Your task to perform on an android device: open app "Walmart Shopping & Grocery" (install if not already installed) Image 0: 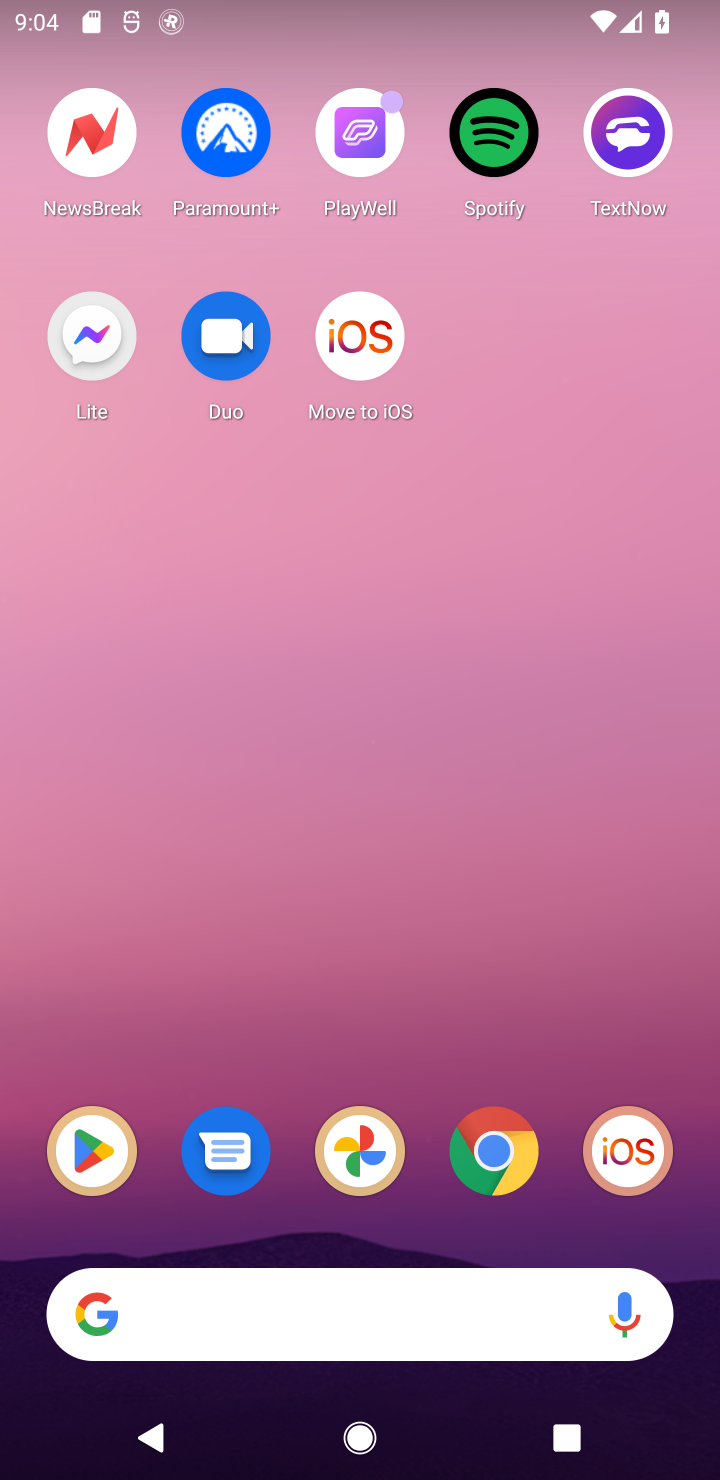
Step 0: click (85, 1183)
Your task to perform on an android device: open app "Walmart Shopping & Grocery" (install if not already installed) Image 1: 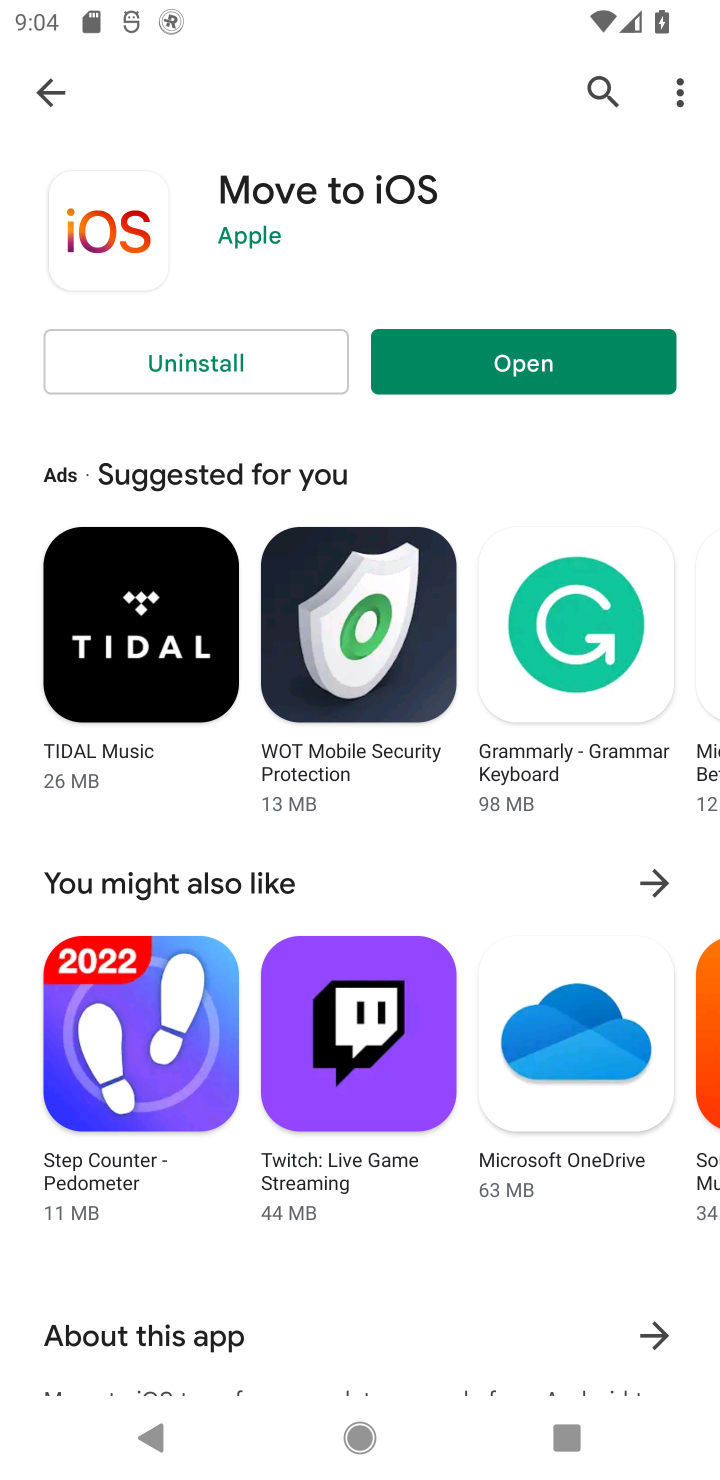
Step 1: click (631, 96)
Your task to perform on an android device: open app "Walmart Shopping & Grocery" (install if not already installed) Image 2: 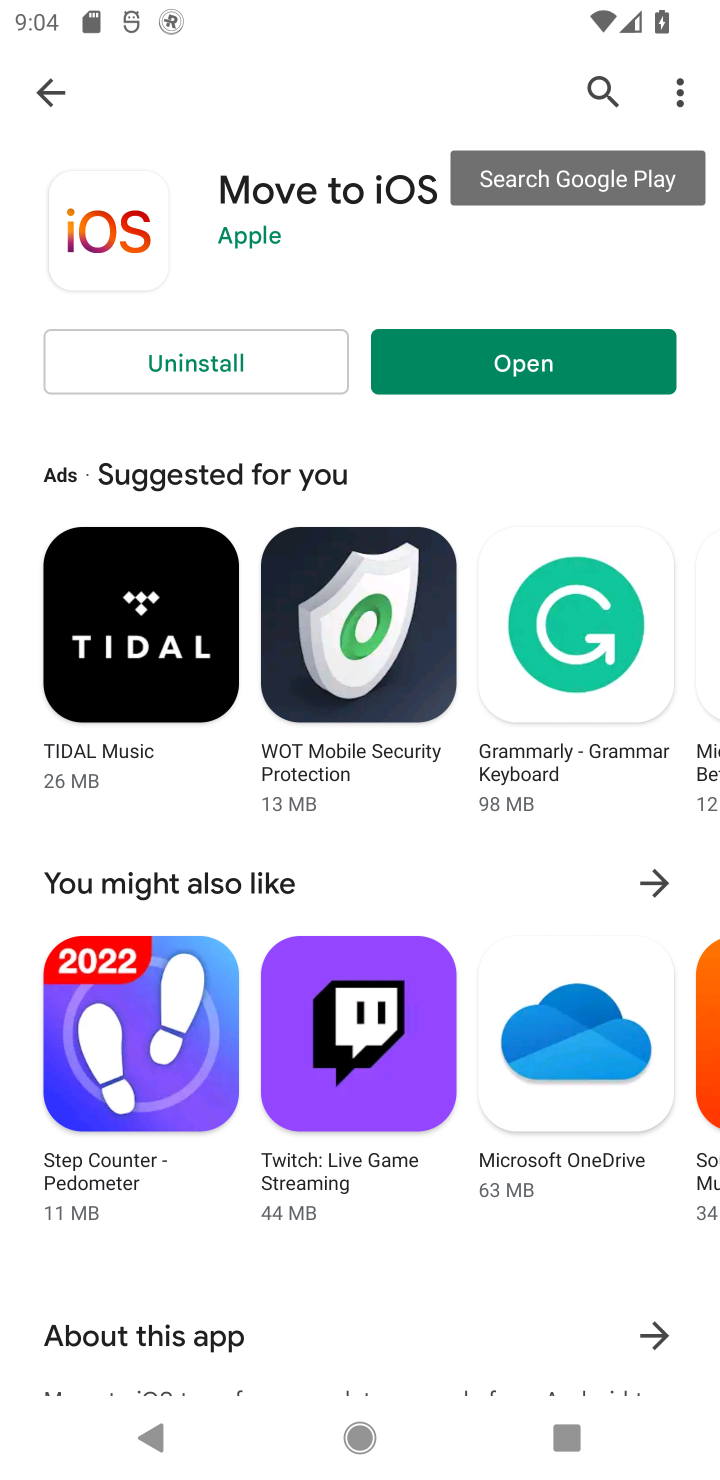
Step 2: click (604, 91)
Your task to perform on an android device: open app "Walmart Shopping & Grocery" (install if not already installed) Image 3: 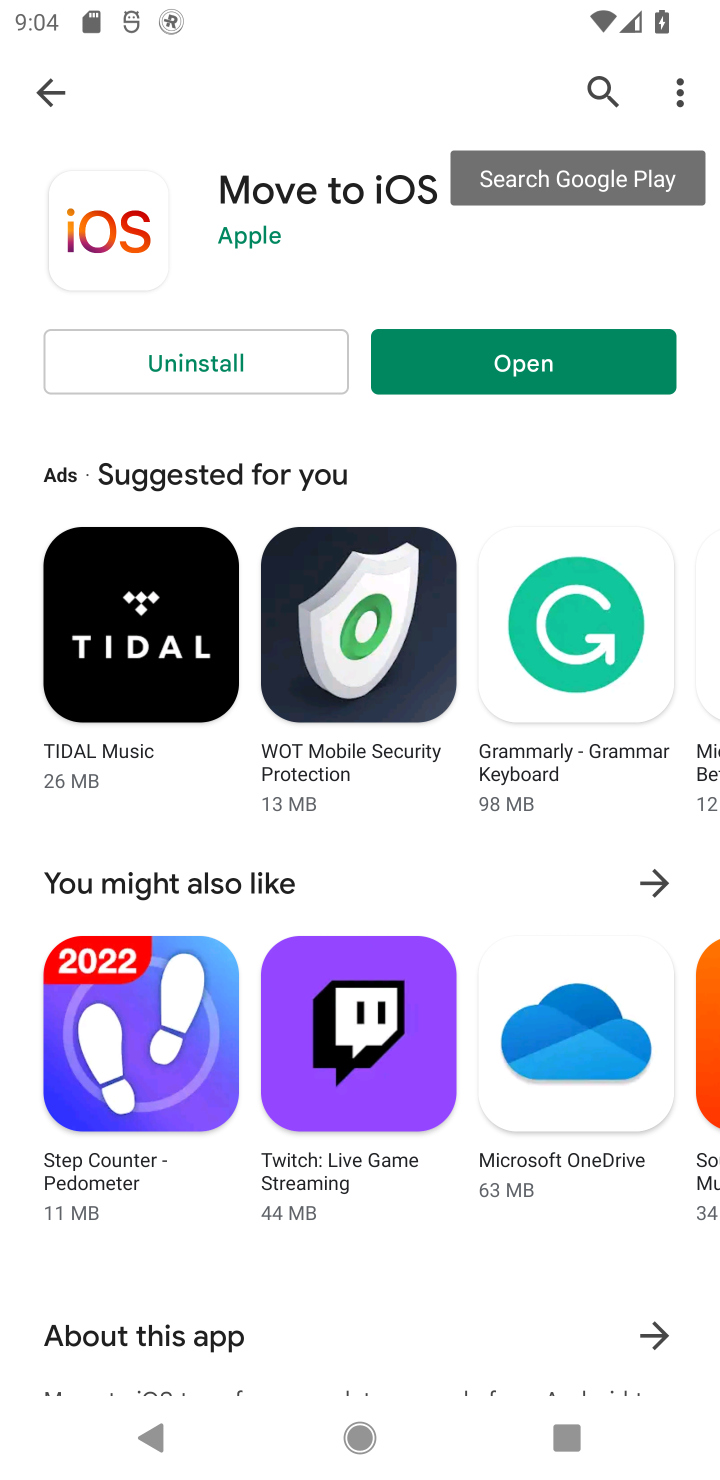
Step 3: click (610, 95)
Your task to perform on an android device: open app "Walmart Shopping & Grocery" (install if not already installed) Image 4: 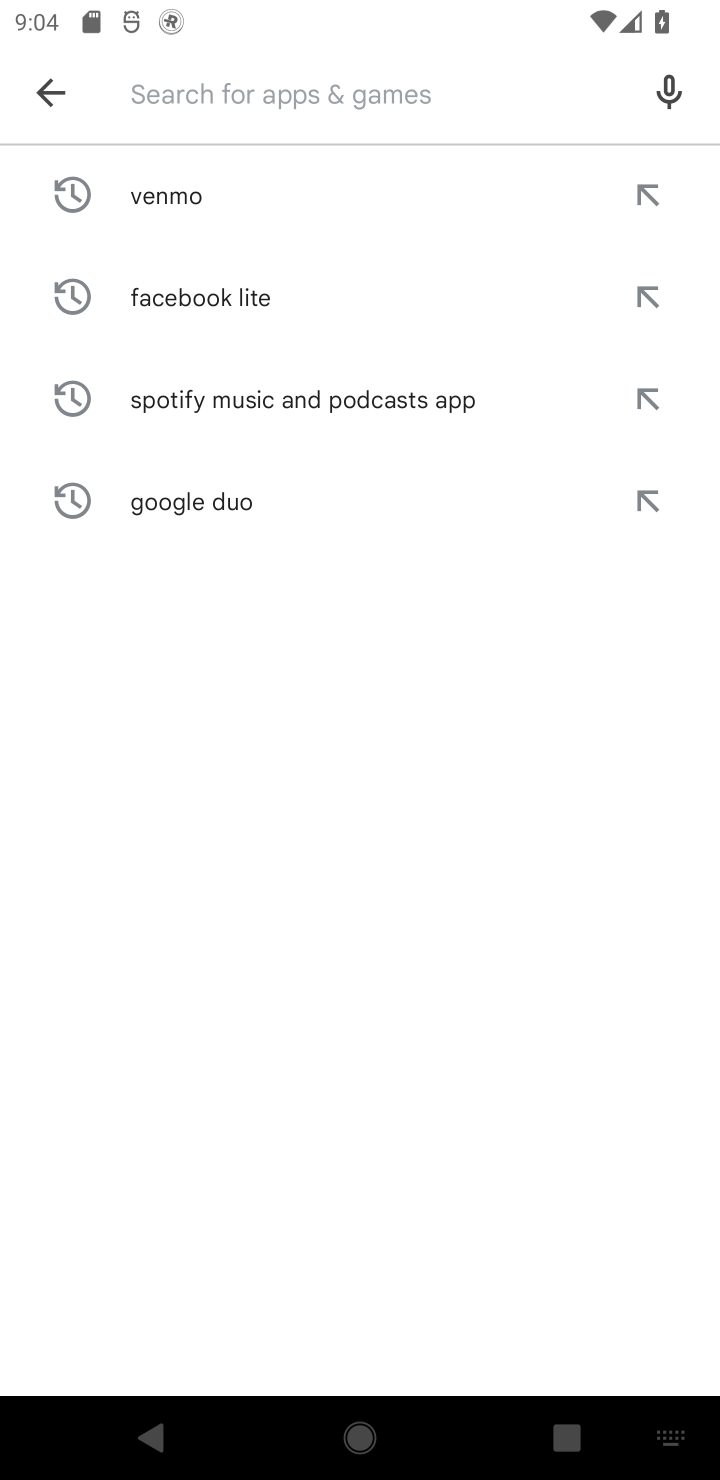
Step 4: type "Walmart Shopping & Grocery"
Your task to perform on an android device: open app "Walmart Shopping & Grocery" (install if not already installed) Image 5: 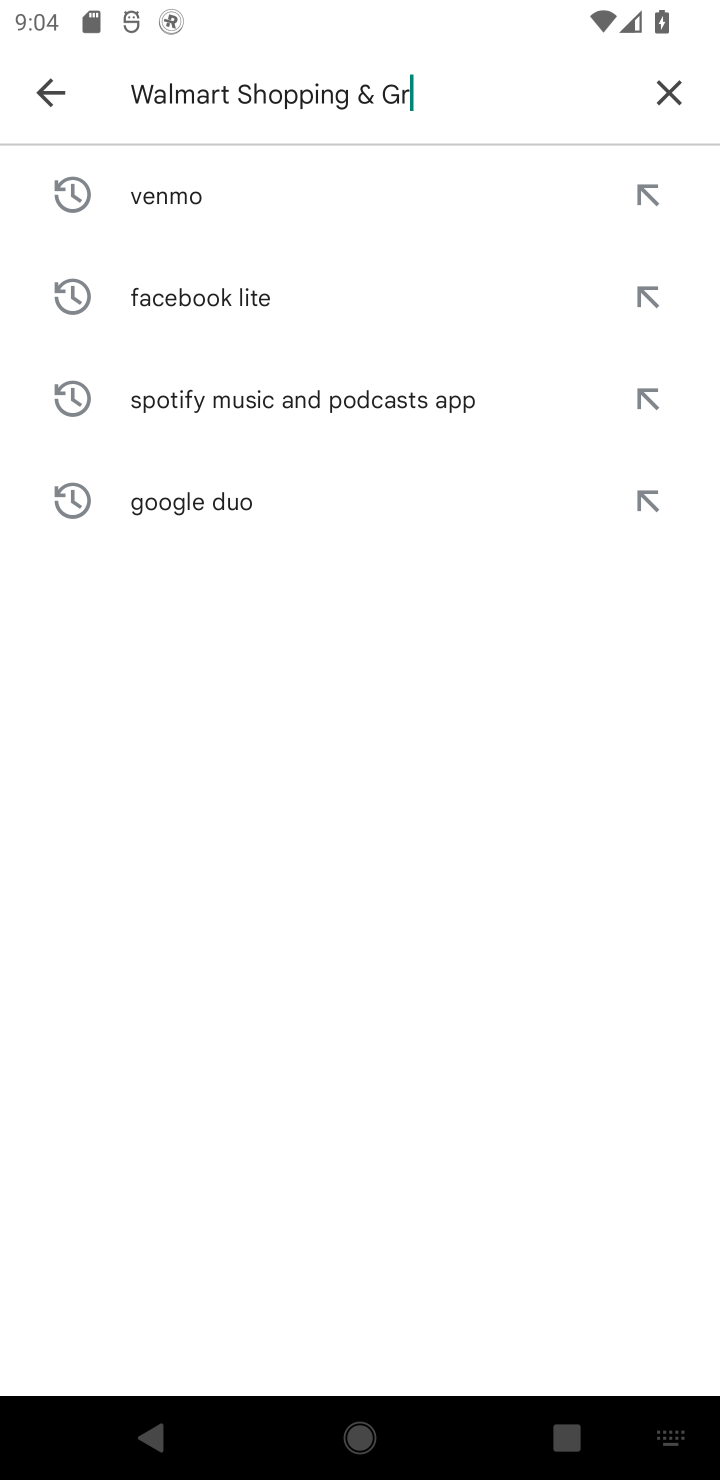
Step 5: type ""
Your task to perform on an android device: open app "Walmart Shopping & Grocery" (install if not already installed) Image 6: 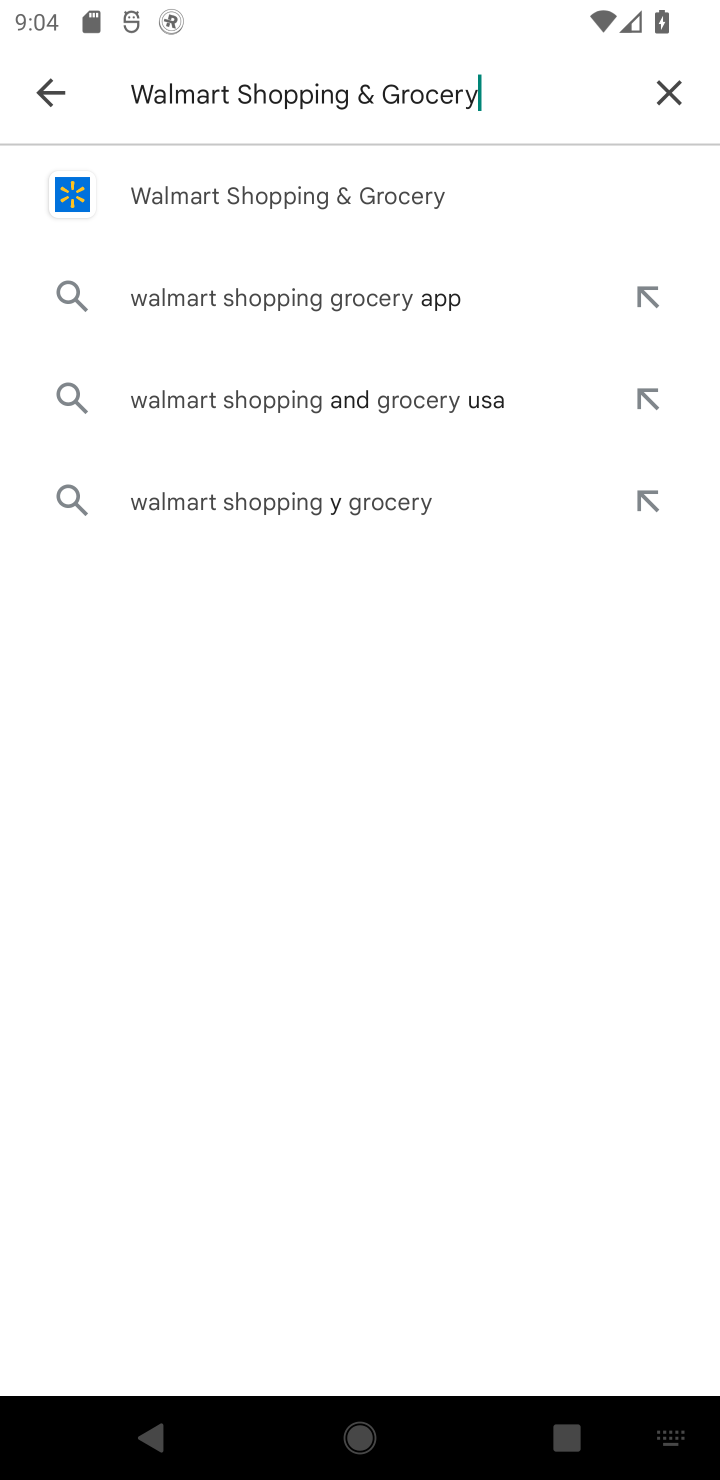
Step 6: click (251, 212)
Your task to perform on an android device: open app "Walmart Shopping & Grocery" (install if not already installed) Image 7: 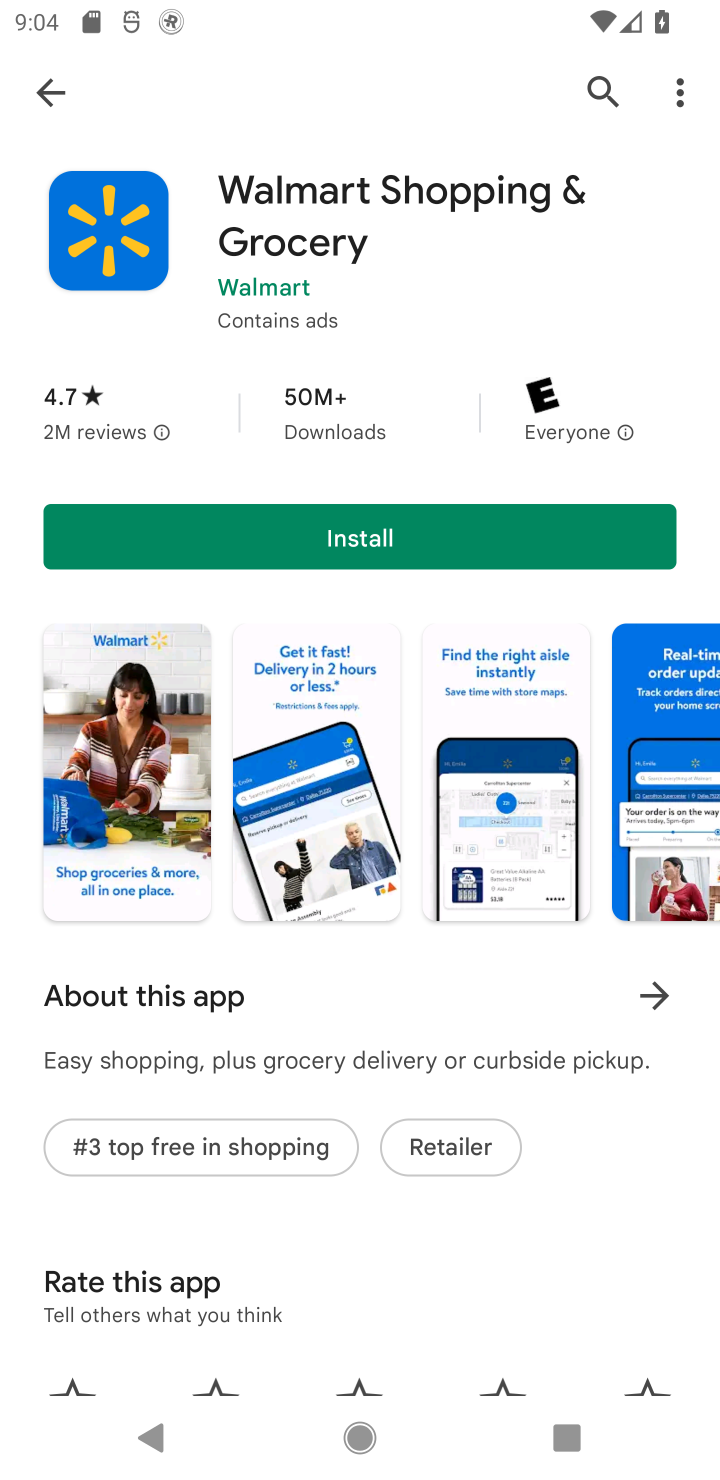
Step 7: click (434, 513)
Your task to perform on an android device: open app "Walmart Shopping & Grocery" (install if not already installed) Image 8: 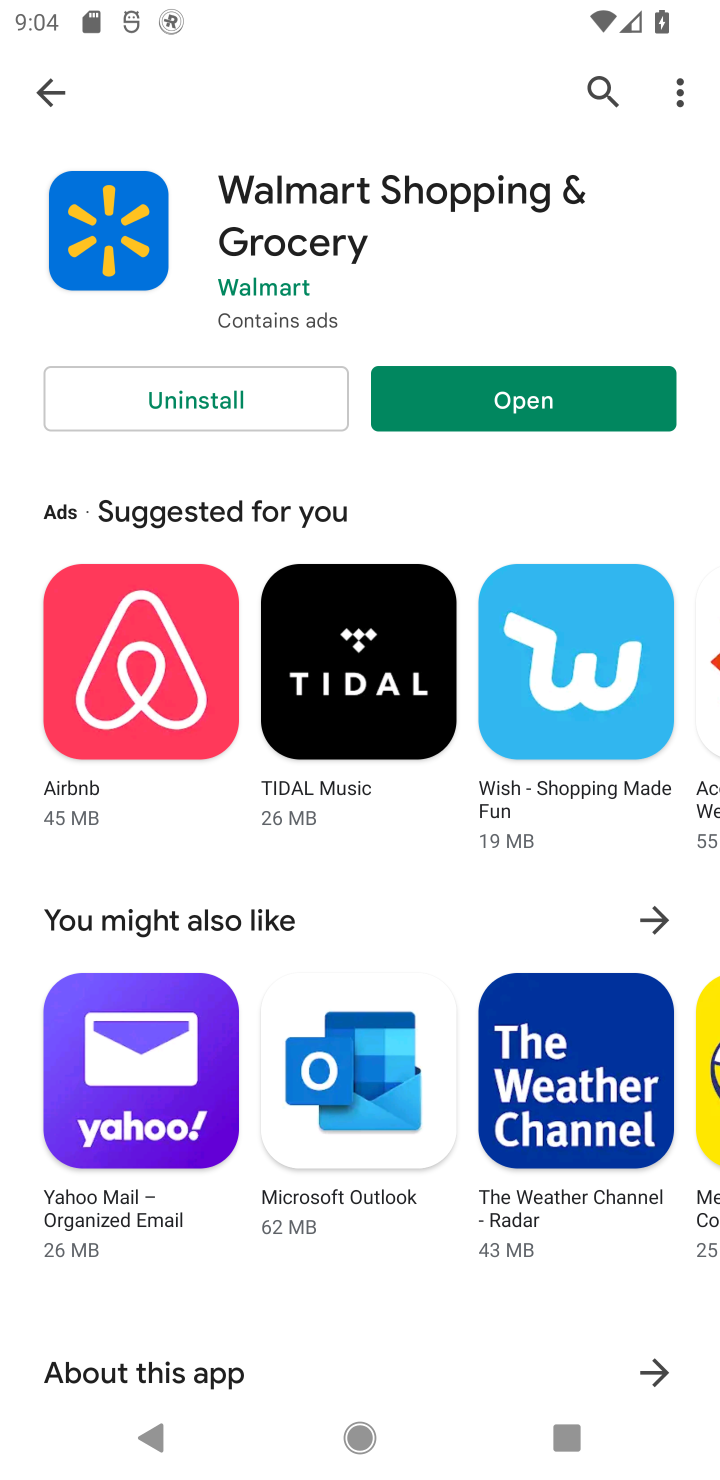
Step 8: click (485, 390)
Your task to perform on an android device: open app "Walmart Shopping & Grocery" (install if not already installed) Image 9: 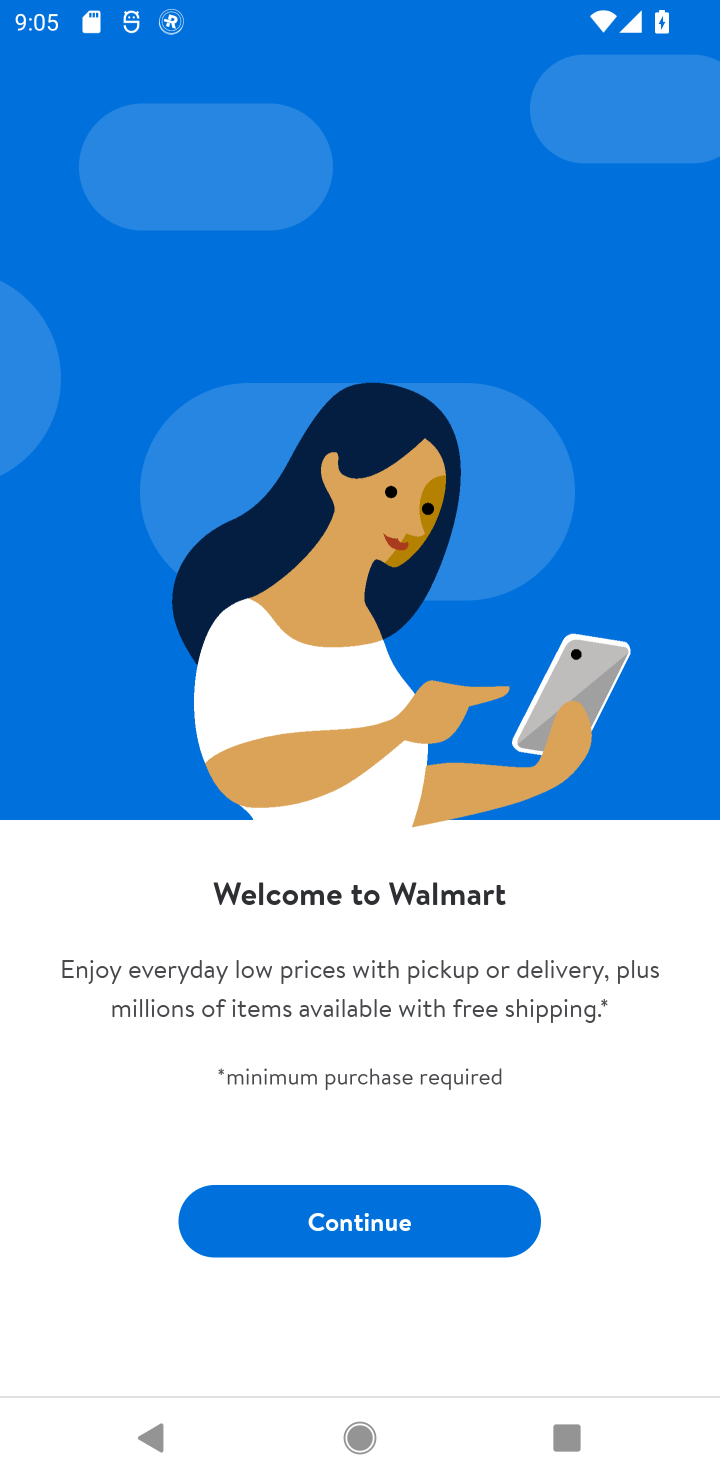
Step 9: task complete